Your task to perform on an android device: open device folders in google photos Image 0: 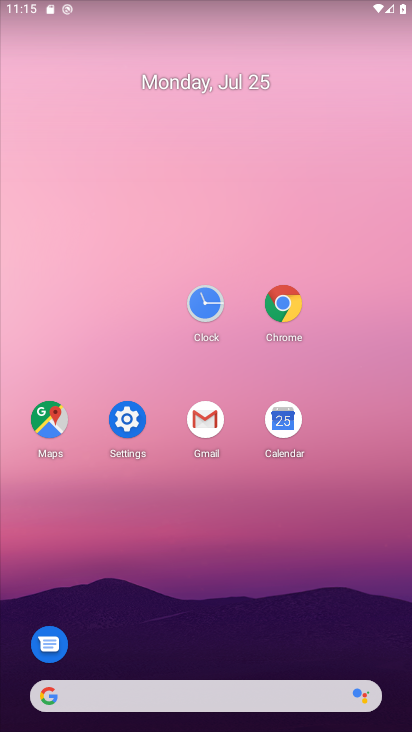
Step 0: drag from (378, 573) to (328, 92)
Your task to perform on an android device: open device folders in google photos Image 1: 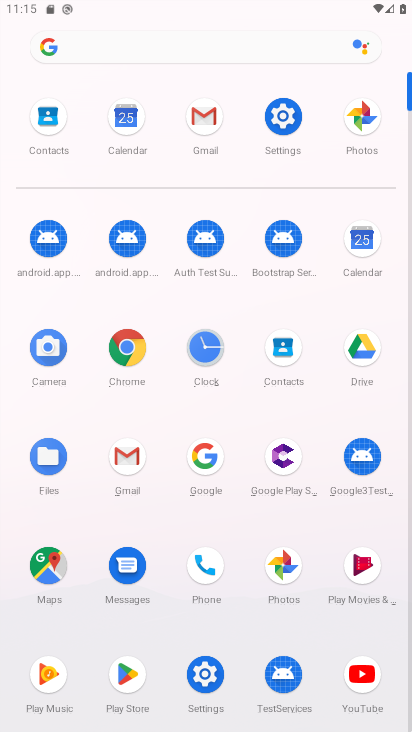
Step 1: click (281, 560)
Your task to perform on an android device: open device folders in google photos Image 2: 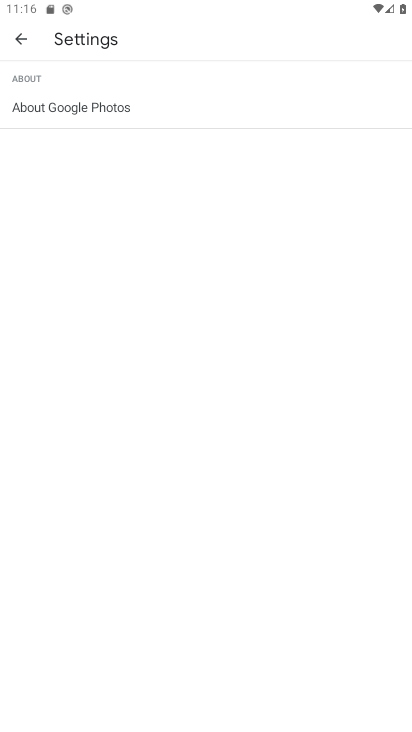
Step 2: task complete